Your task to perform on an android device: open chrome privacy settings Image 0: 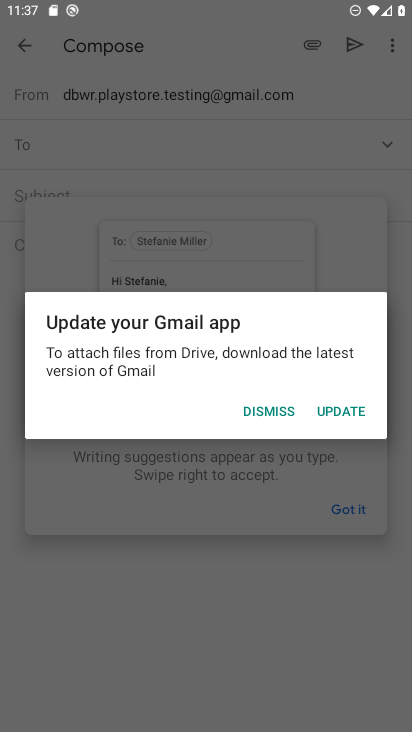
Step 0: press home button
Your task to perform on an android device: open chrome privacy settings Image 1: 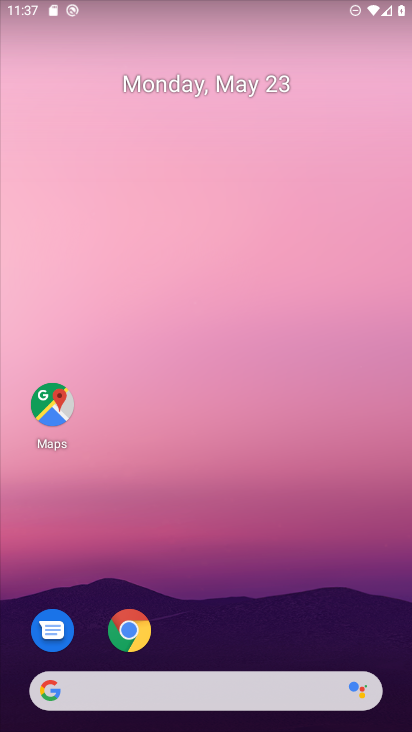
Step 1: click (125, 627)
Your task to perform on an android device: open chrome privacy settings Image 2: 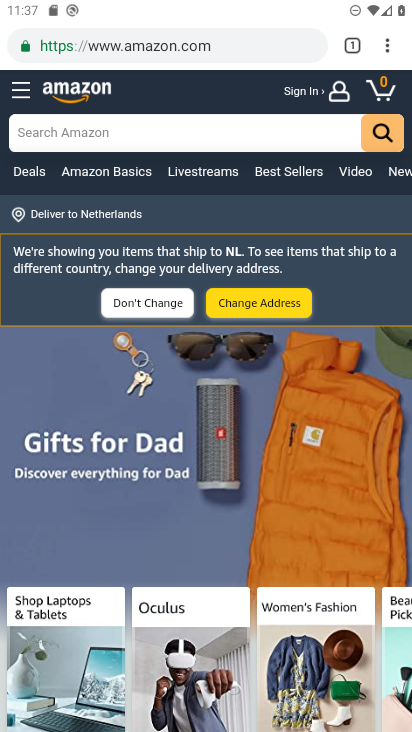
Step 2: click (387, 51)
Your task to perform on an android device: open chrome privacy settings Image 3: 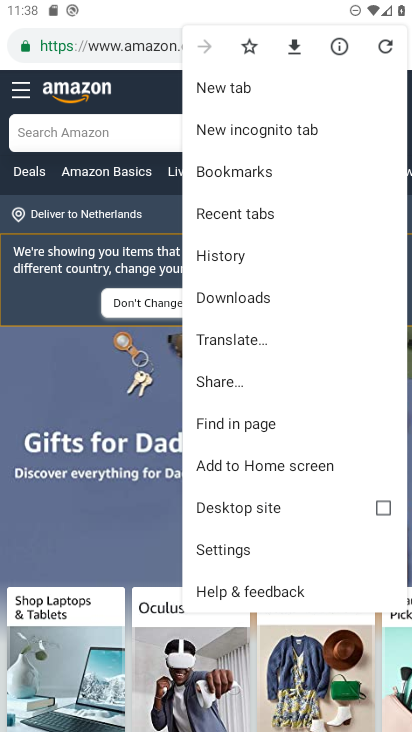
Step 3: click (244, 551)
Your task to perform on an android device: open chrome privacy settings Image 4: 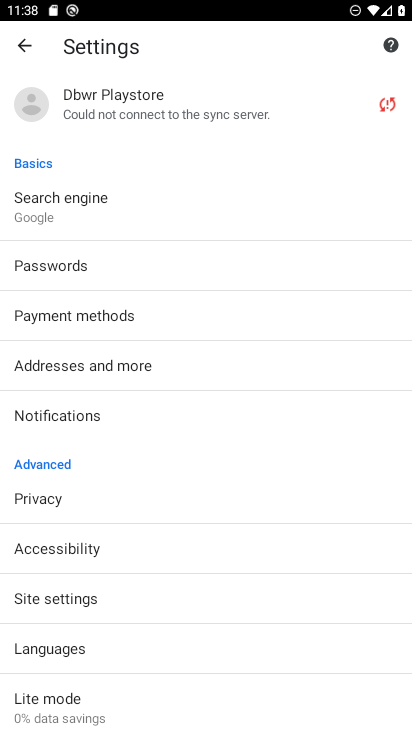
Step 4: click (55, 506)
Your task to perform on an android device: open chrome privacy settings Image 5: 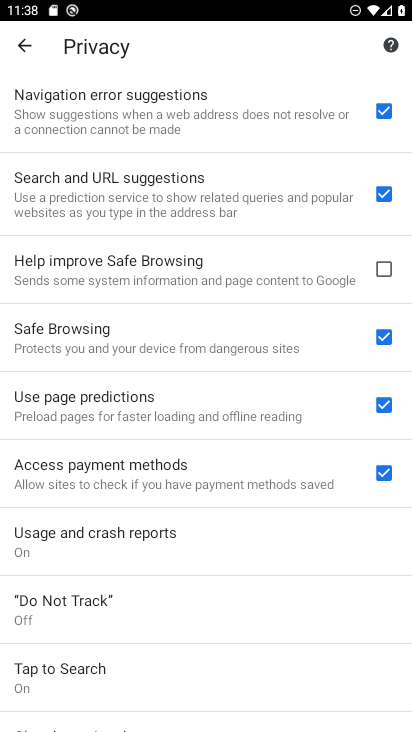
Step 5: task complete